Your task to perform on an android device: allow cookies in the chrome app Image 0: 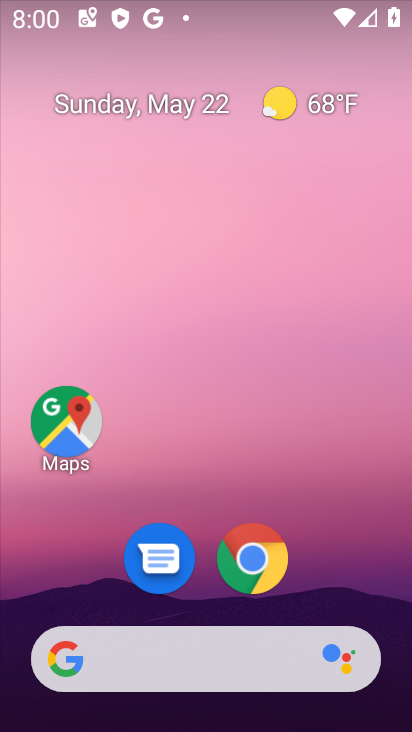
Step 0: drag from (381, 605) to (350, 287)
Your task to perform on an android device: allow cookies in the chrome app Image 1: 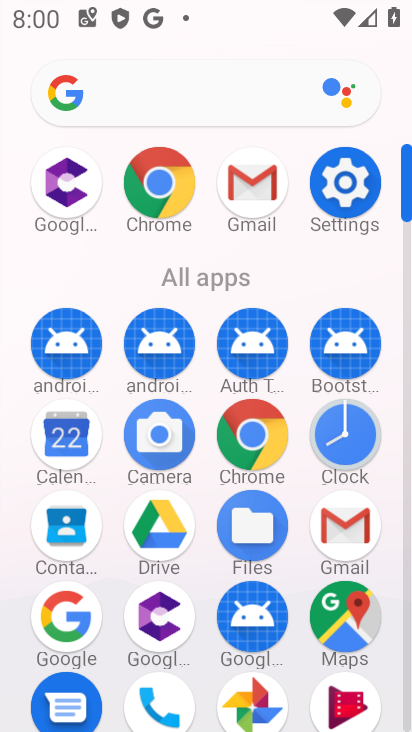
Step 1: click (138, 167)
Your task to perform on an android device: allow cookies in the chrome app Image 2: 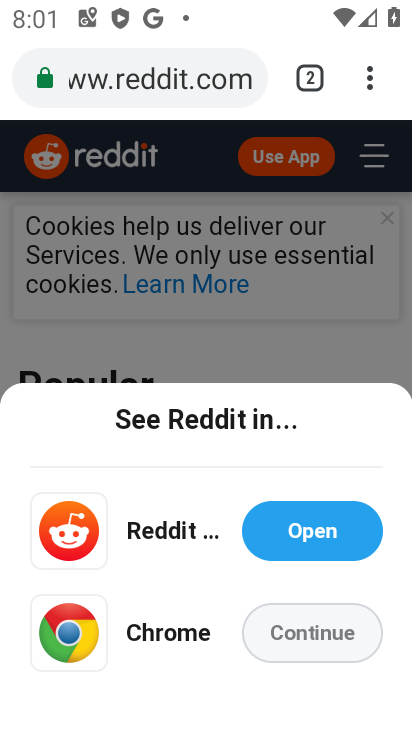
Step 2: click (371, 71)
Your task to perform on an android device: allow cookies in the chrome app Image 3: 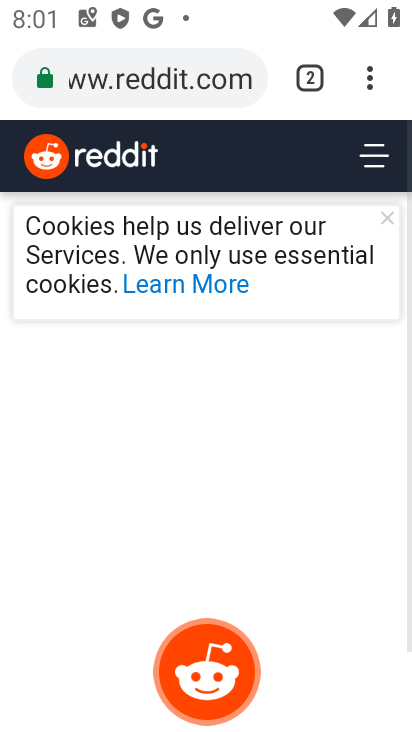
Step 3: click (366, 77)
Your task to perform on an android device: allow cookies in the chrome app Image 4: 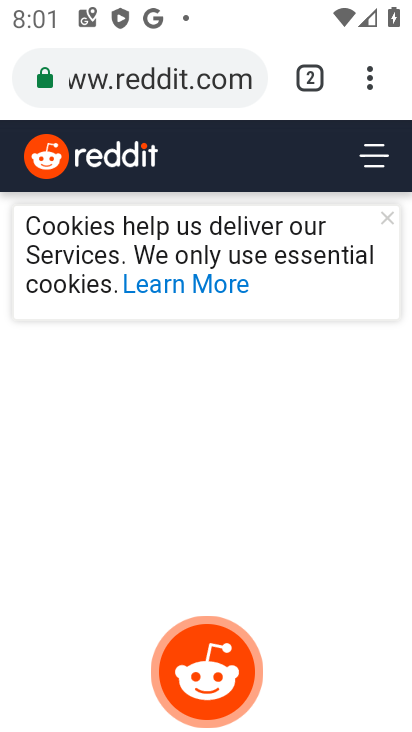
Step 4: click (370, 79)
Your task to perform on an android device: allow cookies in the chrome app Image 5: 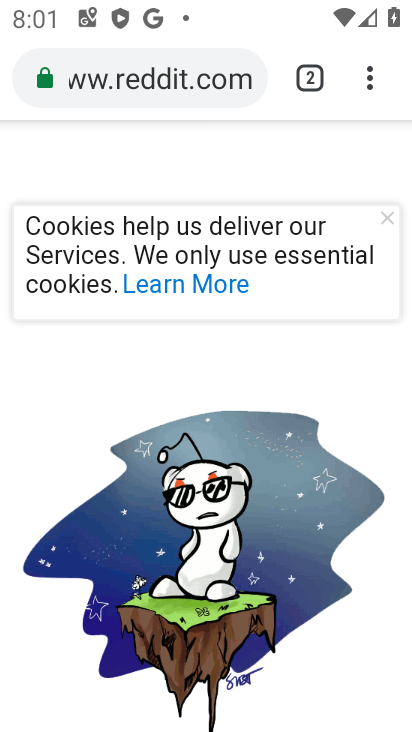
Step 5: click (375, 66)
Your task to perform on an android device: allow cookies in the chrome app Image 6: 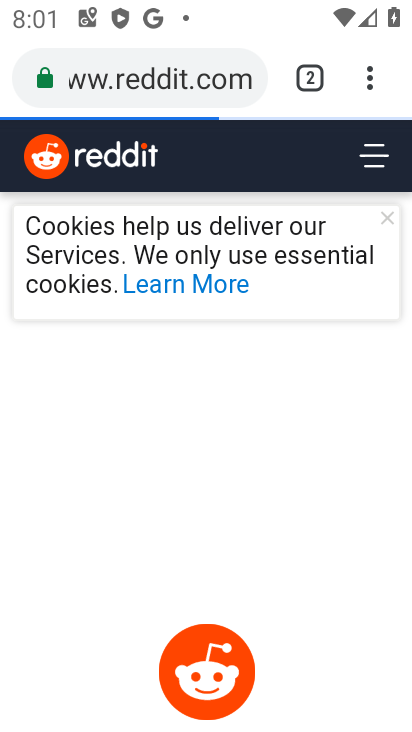
Step 6: click (375, 66)
Your task to perform on an android device: allow cookies in the chrome app Image 7: 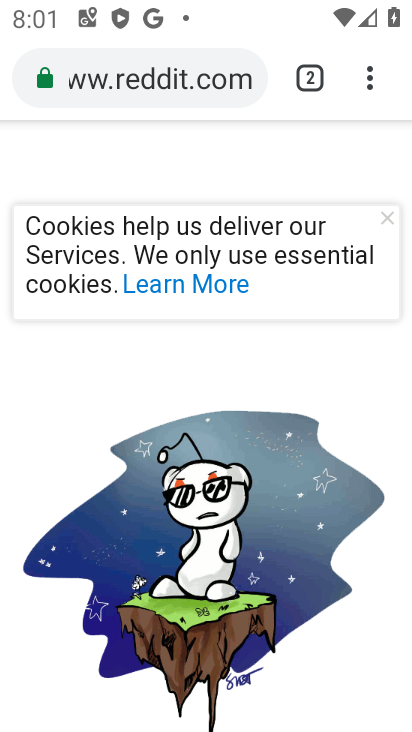
Step 7: click (363, 72)
Your task to perform on an android device: allow cookies in the chrome app Image 8: 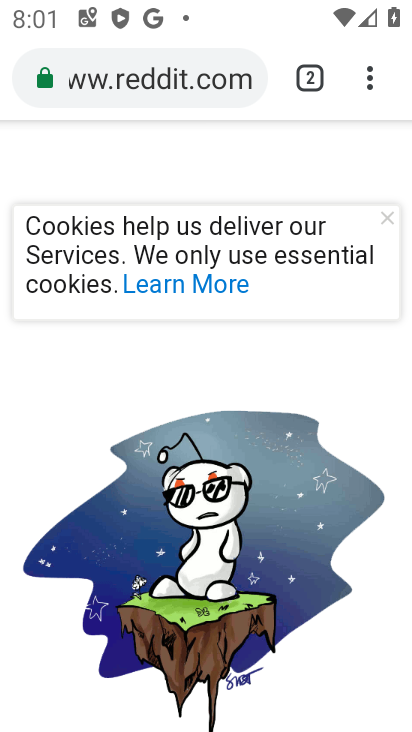
Step 8: click (364, 75)
Your task to perform on an android device: allow cookies in the chrome app Image 9: 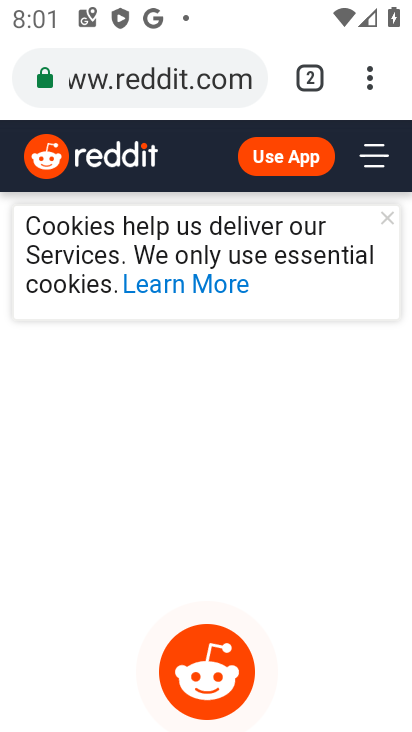
Step 9: click (365, 73)
Your task to perform on an android device: allow cookies in the chrome app Image 10: 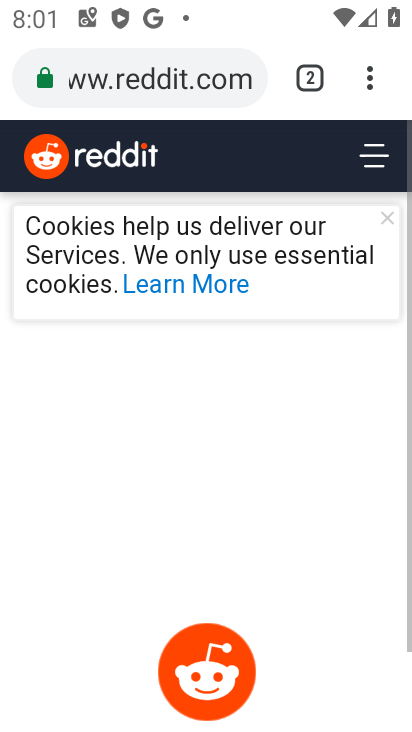
Step 10: click (372, 80)
Your task to perform on an android device: allow cookies in the chrome app Image 11: 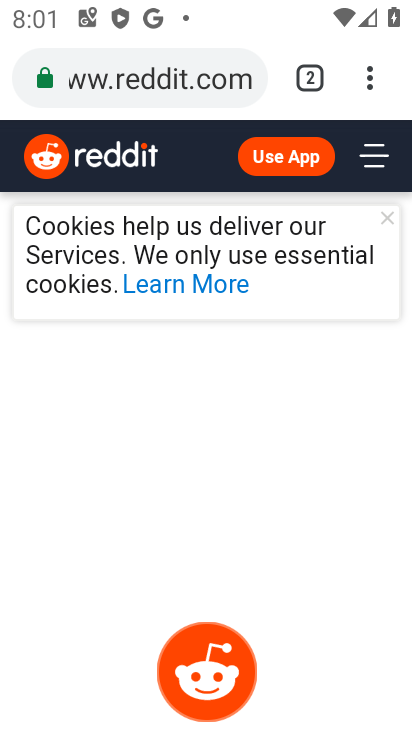
Step 11: click (366, 75)
Your task to perform on an android device: allow cookies in the chrome app Image 12: 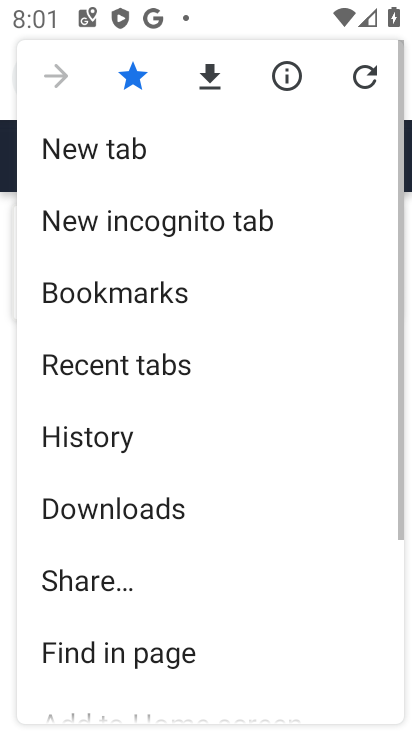
Step 12: drag from (199, 607) to (230, 240)
Your task to perform on an android device: allow cookies in the chrome app Image 13: 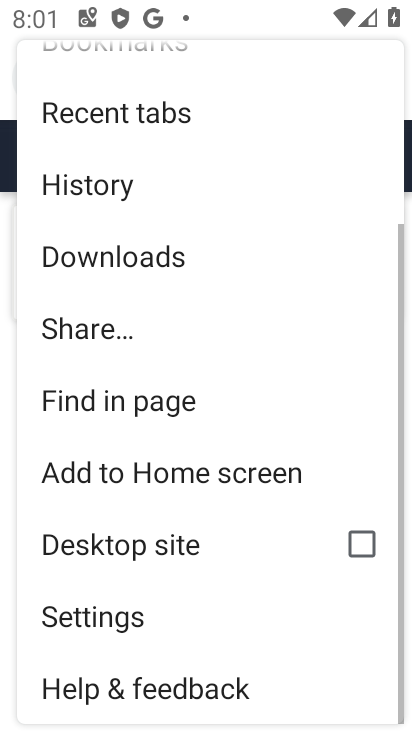
Step 13: click (162, 660)
Your task to perform on an android device: allow cookies in the chrome app Image 14: 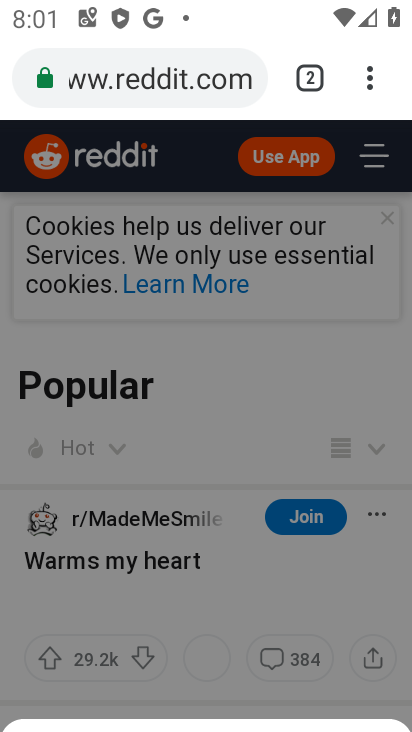
Step 14: press back button
Your task to perform on an android device: allow cookies in the chrome app Image 15: 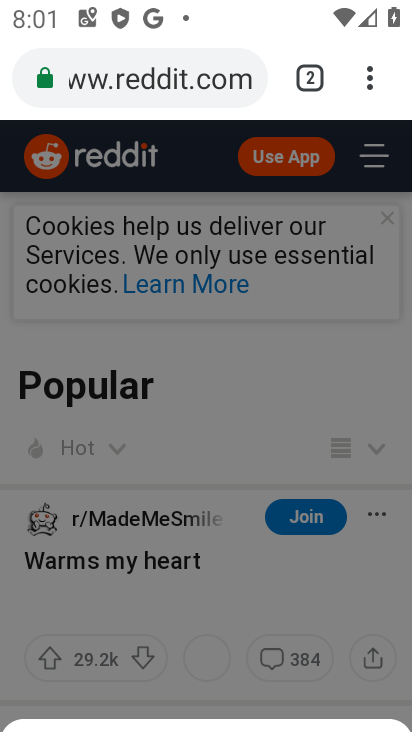
Step 15: click (359, 58)
Your task to perform on an android device: allow cookies in the chrome app Image 16: 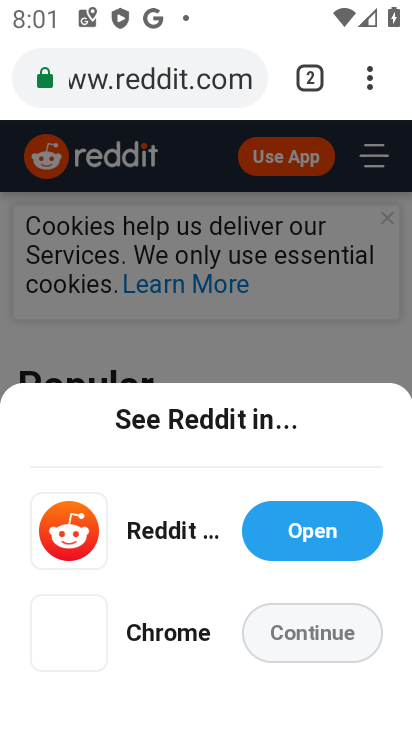
Step 16: click (347, 68)
Your task to perform on an android device: allow cookies in the chrome app Image 17: 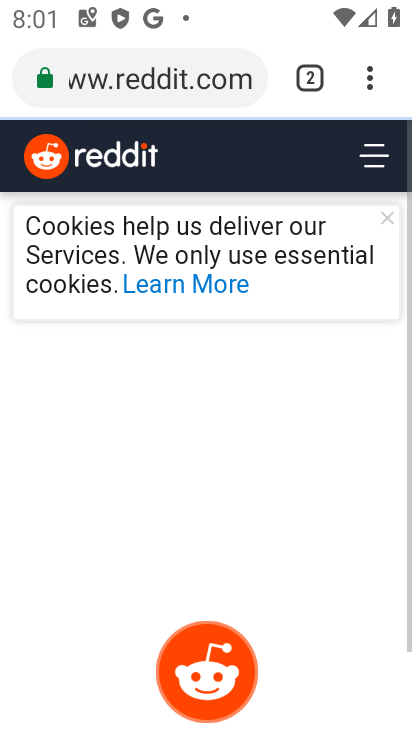
Step 17: click (373, 88)
Your task to perform on an android device: allow cookies in the chrome app Image 18: 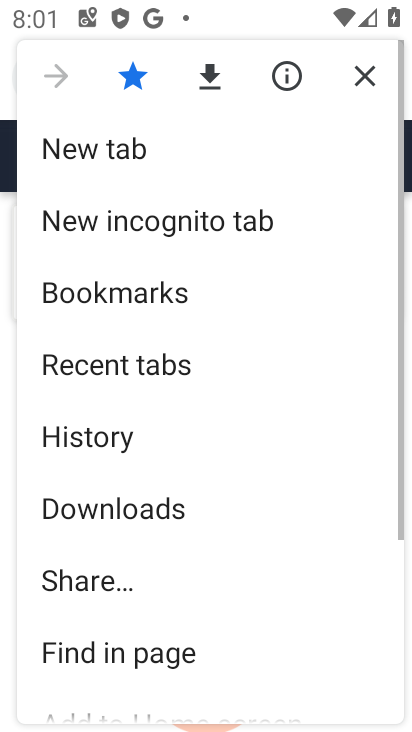
Step 18: drag from (144, 701) to (265, 207)
Your task to perform on an android device: allow cookies in the chrome app Image 19: 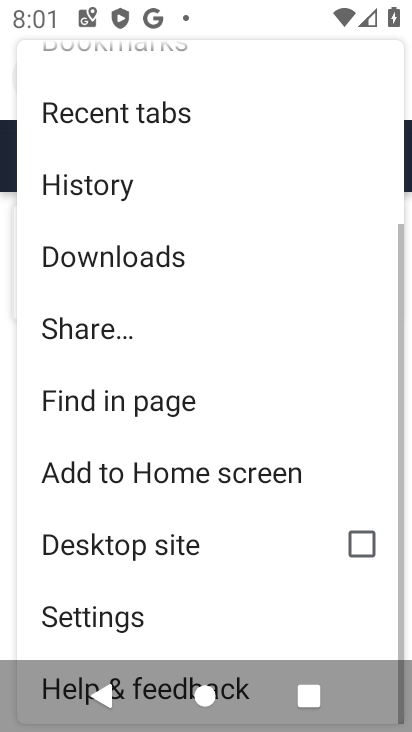
Step 19: click (144, 623)
Your task to perform on an android device: allow cookies in the chrome app Image 20: 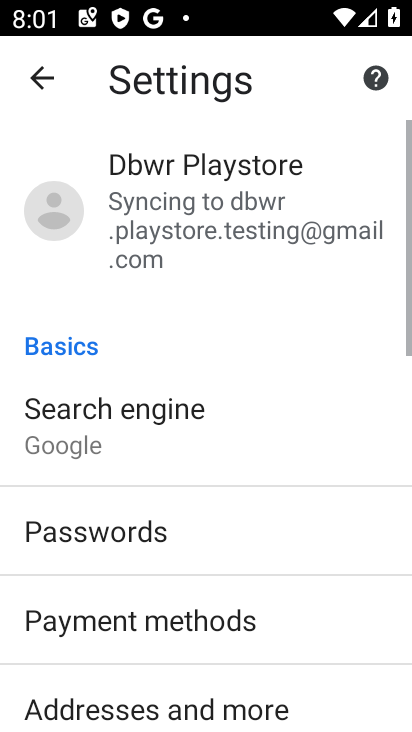
Step 20: drag from (167, 567) to (207, 140)
Your task to perform on an android device: allow cookies in the chrome app Image 21: 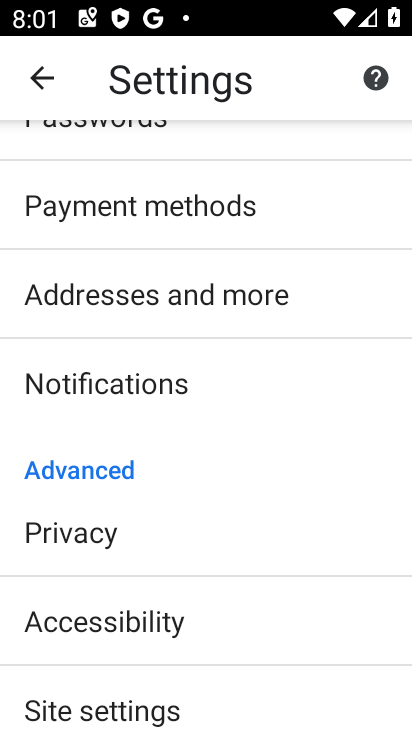
Step 21: drag from (146, 547) to (189, 314)
Your task to perform on an android device: allow cookies in the chrome app Image 22: 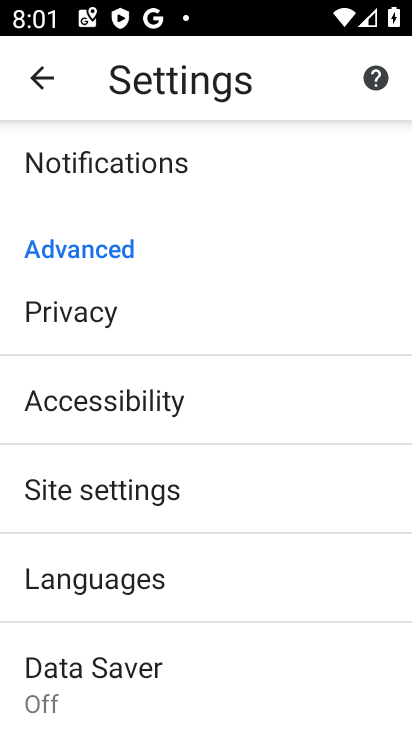
Step 22: drag from (135, 646) to (154, 431)
Your task to perform on an android device: allow cookies in the chrome app Image 23: 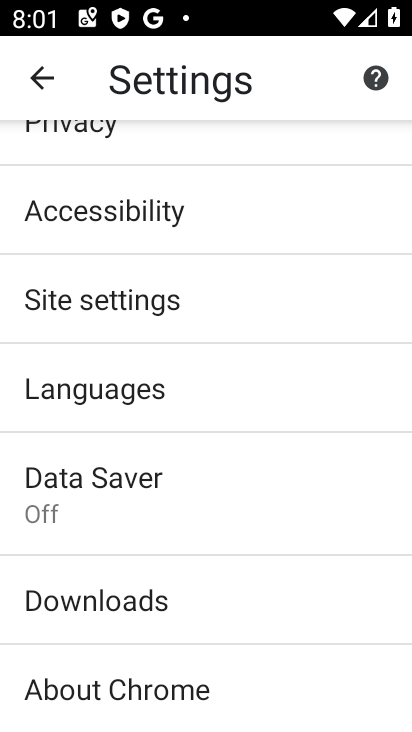
Step 23: click (109, 305)
Your task to perform on an android device: allow cookies in the chrome app Image 24: 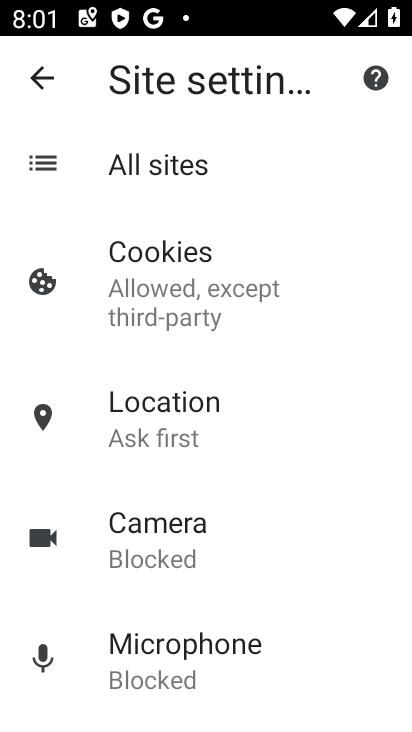
Step 24: click (172, 262)
Your task to perform on an android device: allow cookies in the chrome app Image 25: 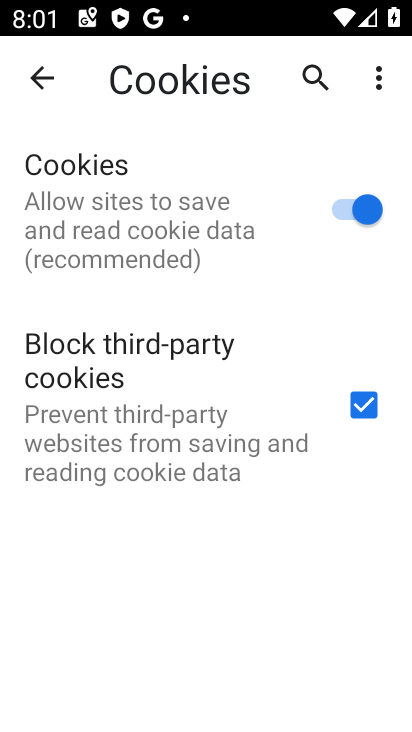
Step 25: task complete